Your task to perform on an android device: check battery use Image 0: 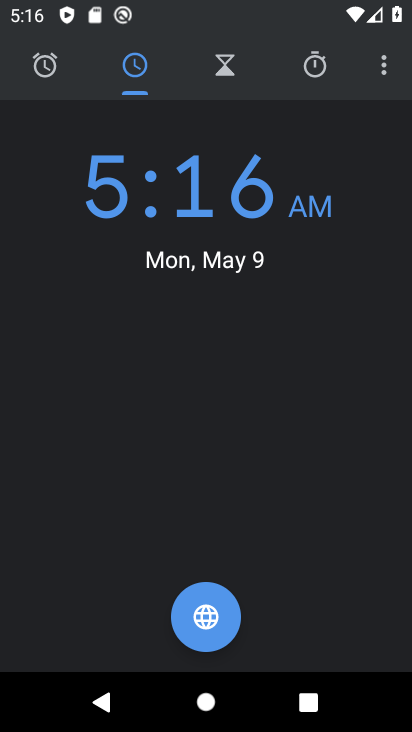
Step 0: press back button
Your task to perform on an android device: check battery use Image 1: 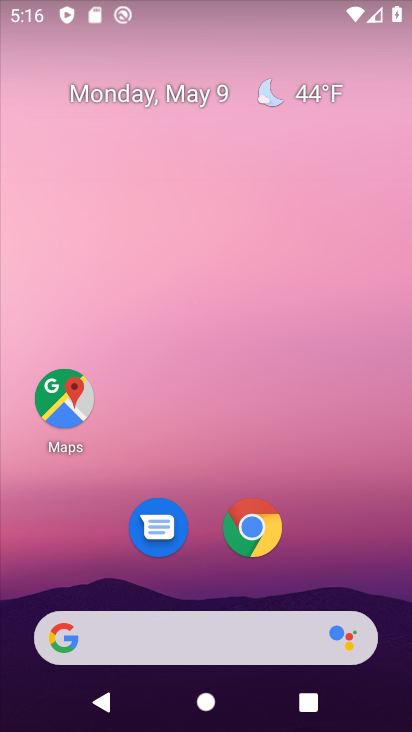
Step 1: drag from (302, 491) to (246, 18)
Your task to perform on an android device: check battery use Image 2: 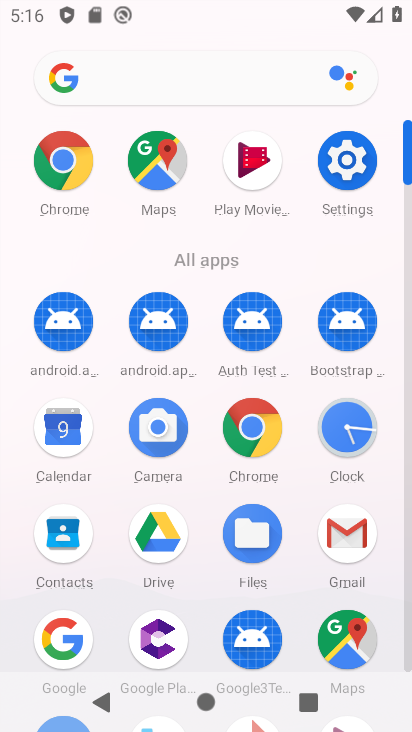
Step 2: click (346, 156)
Your task to perform on an android device: check battery use Image 3: 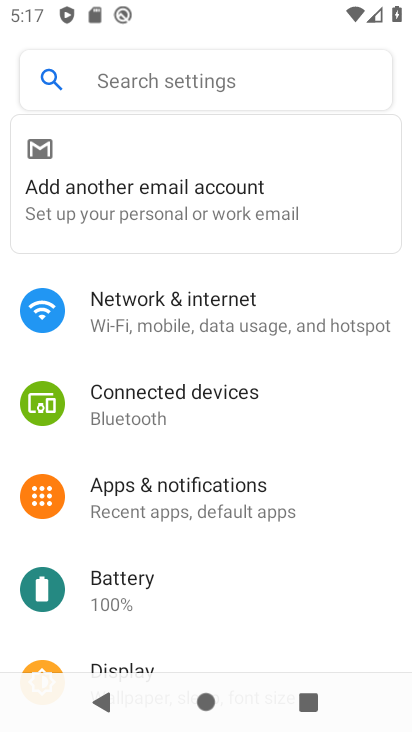
Step 3: drag from (281, 466) to (315, 100)
Your task to perform on an android device: check battery use Image 4: 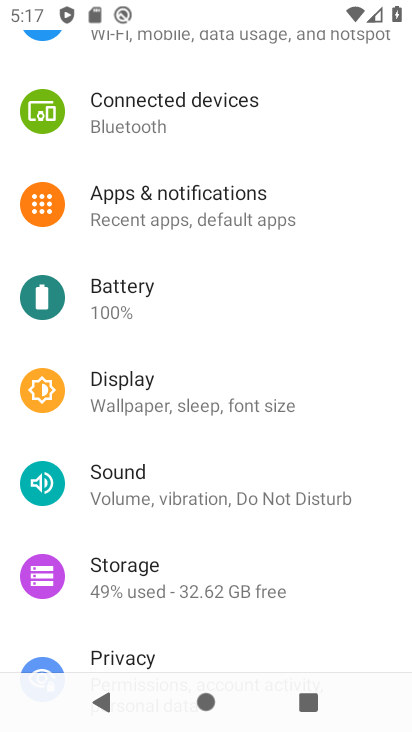
Step 4: click (151, 283)
Your task to perform on an android device: check battery use Image 5: 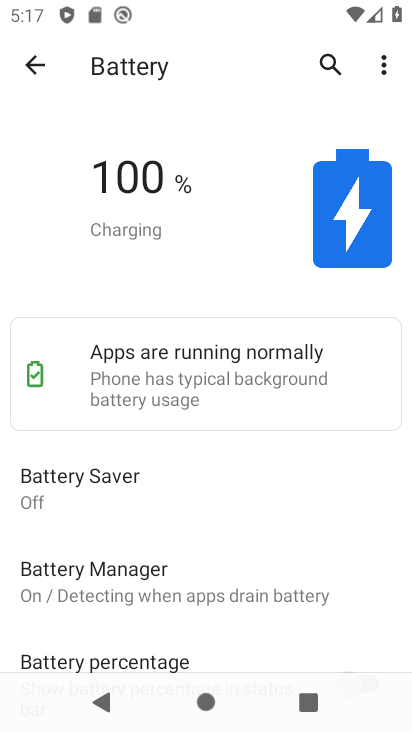
Step 5: task complete